Your task to perform on an android device: Open Android settings Image 0: 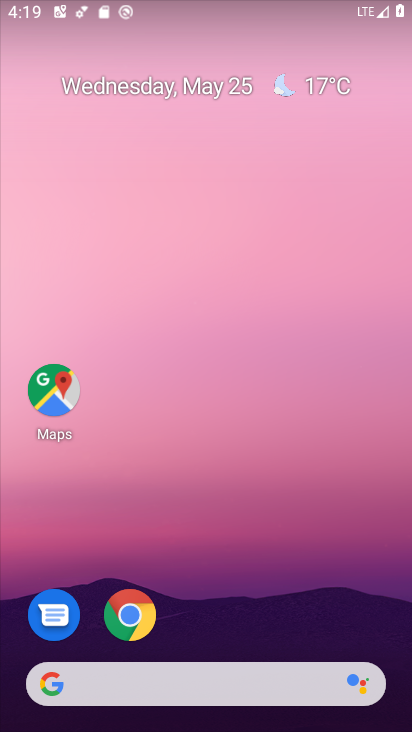
Step 0: click (164, 48)
Your task to perform on an android device: Open Android settings Image 1: 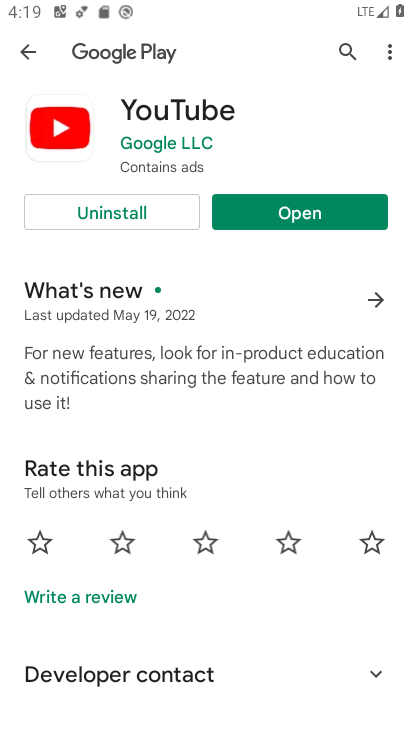
Step 1: press home button
Your task to perform on an android device: Open Android settings Image 2: 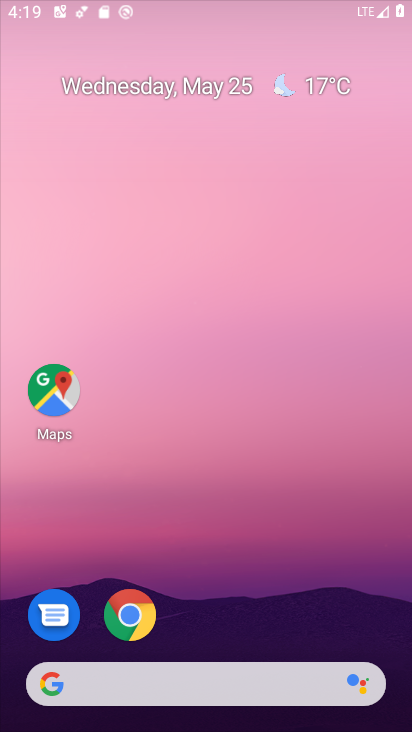
Step 2: drag from (265, 400) to (212, 0)
Your task to perform on an android device: Open Android settings Image 3: 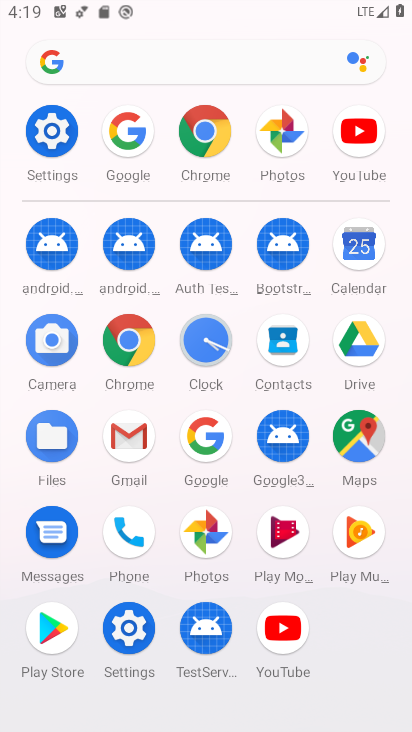
Step 3: click (53, 121)
Your task to perform on an android device: Open Android settings Image 4: 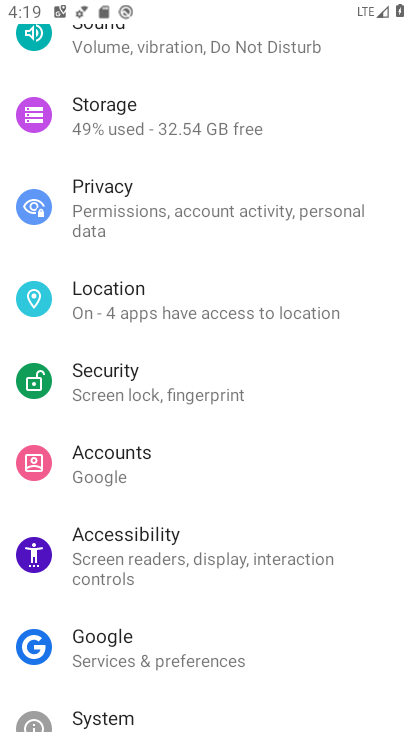
Step 4: drag from (299, 610) to (280, 206)
Your task to perform on an android device: Open Android settings Image 5: 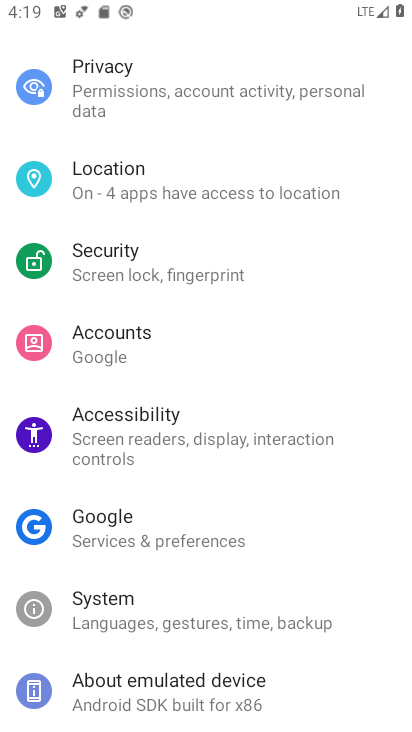
Step 5: click (218, 690)
Your task to perform on an android device: Open Android settings Image 6: 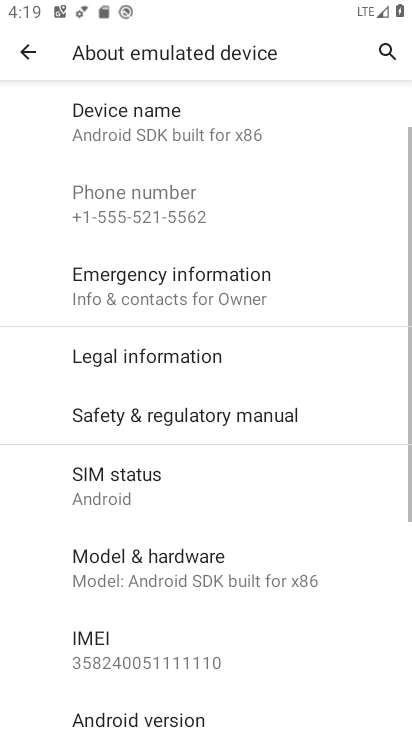
Step 6: click (135, 711)
Your task to perform on an android device: Open Android settings Image 7: 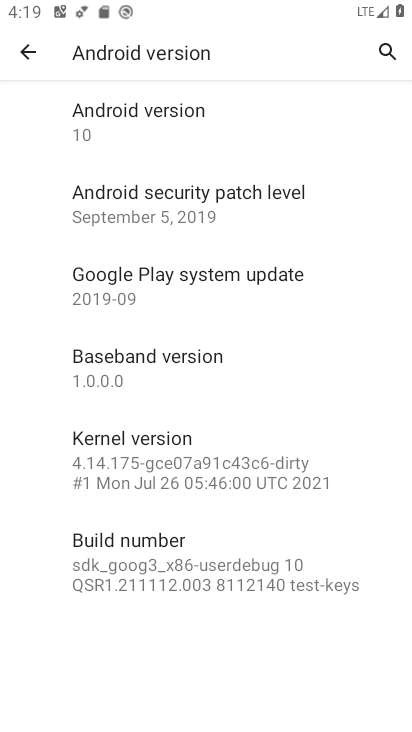
Step 7: click (147, 132)
Your task to perform on an android device: Open Android settings Image 8: 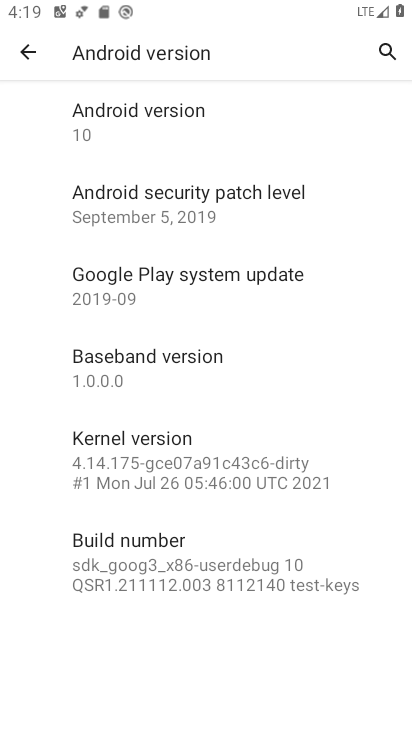
Step 8: task complete